Your task to perform on an android device: Go to sound settings Image 0: 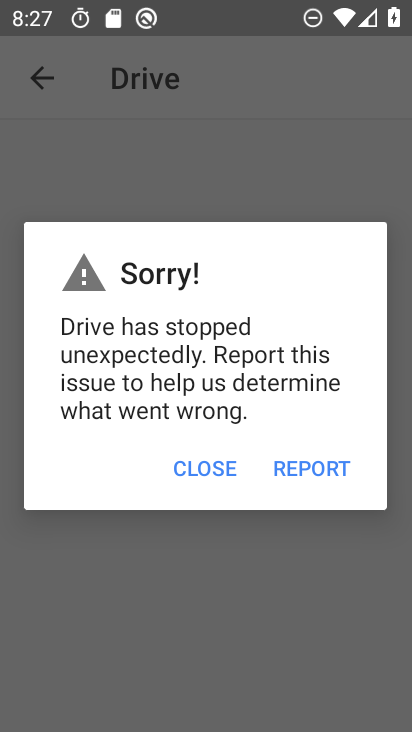
Step 0: press home button
Your task to perform on an android device: Go to sound settings Image 1: 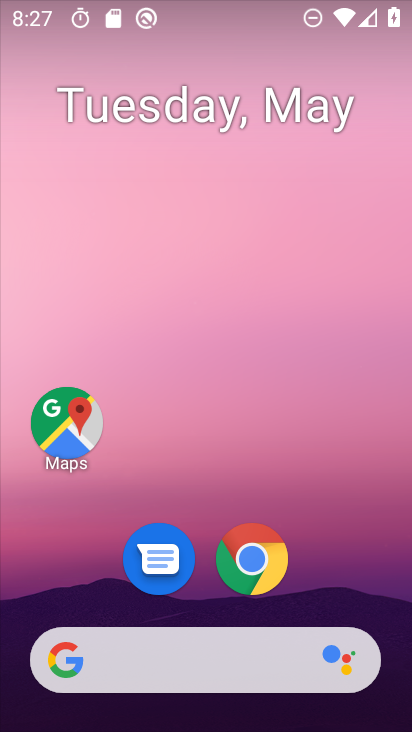
Step 1: drag from (387, 577) to (220, 98)
Your task to perform on an android device: Go to sound settings Image 2: 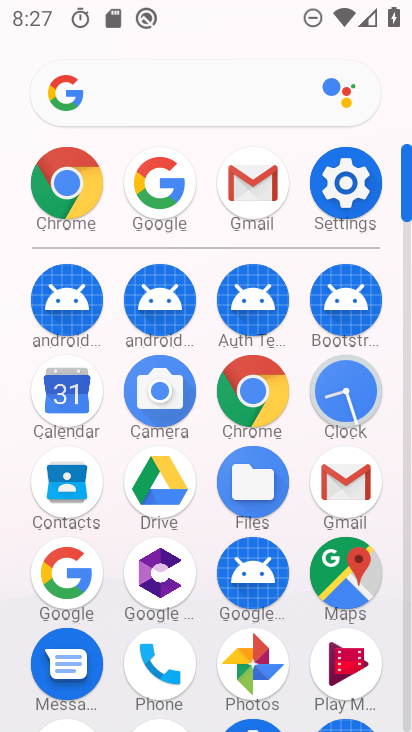
Step 2: click (355, 191)
Your task to perform on an android device: Go to sound settings Image 3: 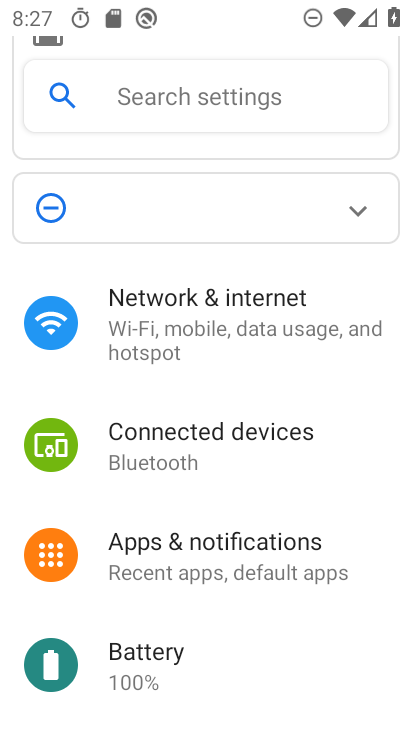
Step 3: drag from (184, 647) to (227, 156)
Your task to perform on an android device: Go to sound settings Image 4: 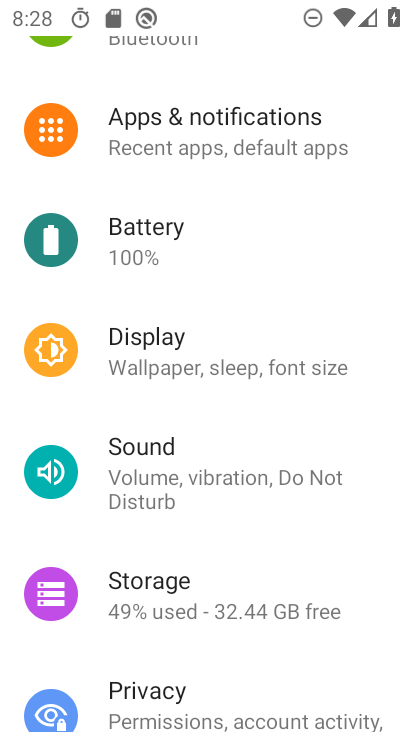
Step 4: click (198, 470)
Your task to perform on an android device: Go to sound settings Image 5: 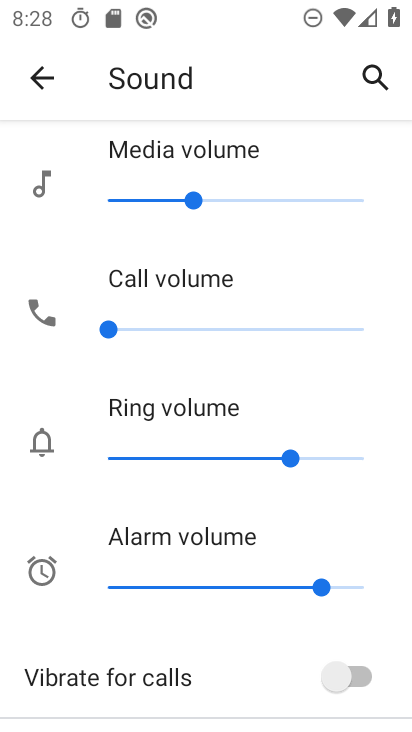
Step 5: task complete